Your task to perform on an android device: empty trash in google photos Image 0: 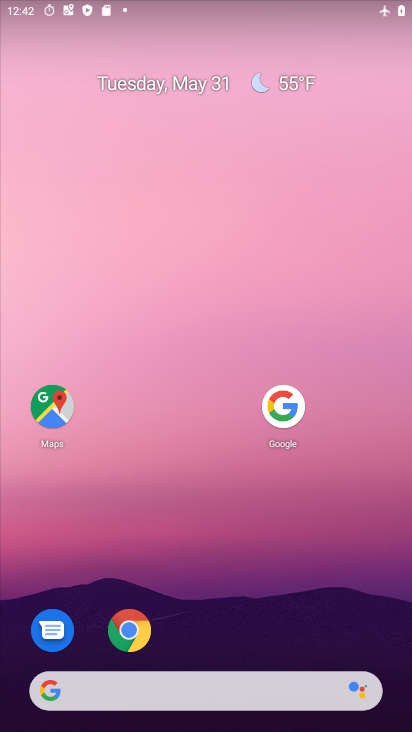
Step 0: drag from (235, 696) to (245, 431)
Your task to perform on an android device: empty trash in google photos Image 1: 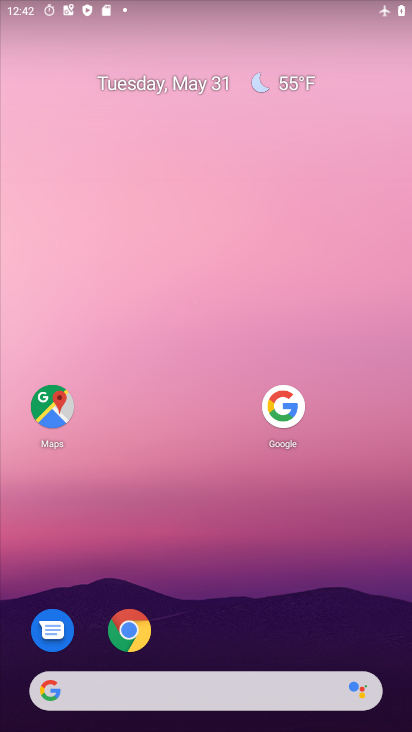
Step 1: drag from (170, 699) to (299, 270)
Your task to perform on an android device: empty trash in google photos Image 2: 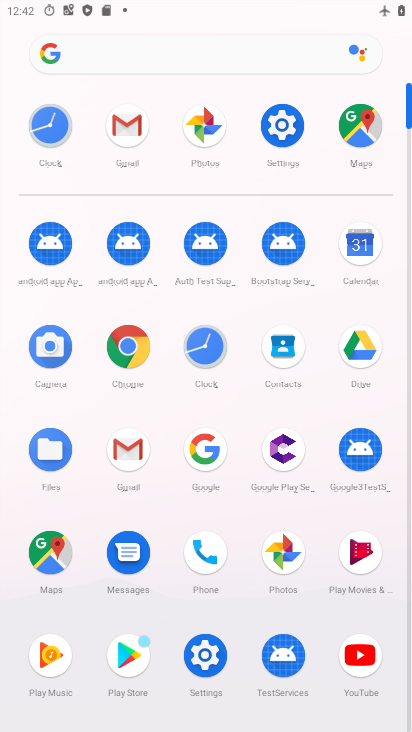
Step 2: click (294, 555)
Your task to perform on an android device: empty trash in google photos Image 3: 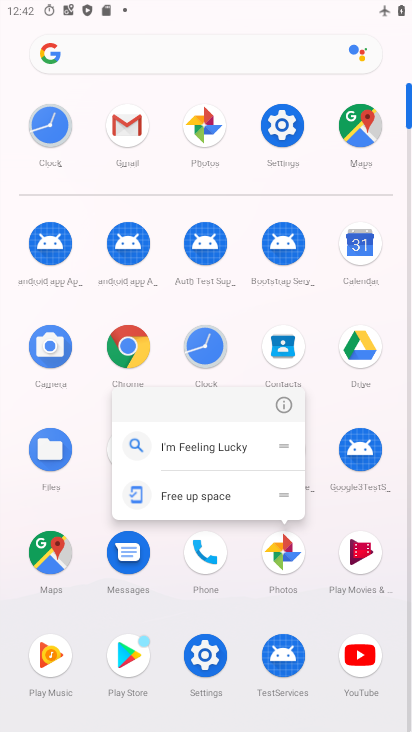
Step 3: click (273, 552)
Your task to perform on an android device: empty trash in google photos Image 4: 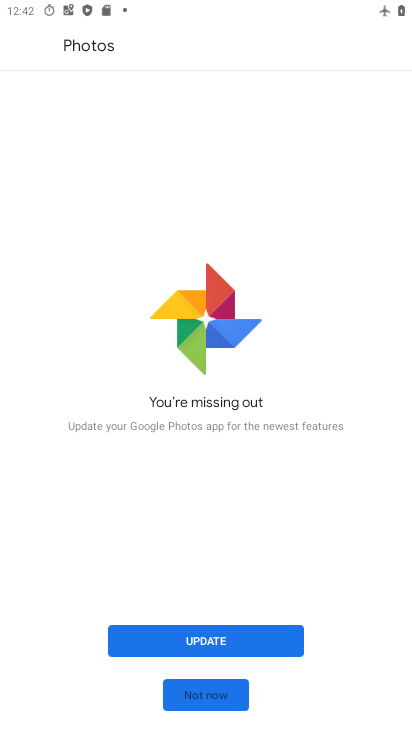
Step 4: click (189, 635)
Your task to perform on an android device: empty trash in google photos Image 5: 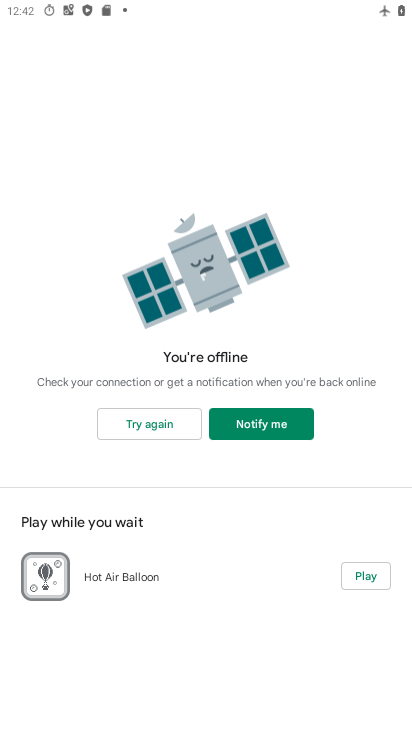
Step 5: click (145, 419)
Your task to perform on an android device: empty trash in google photos Image 6: 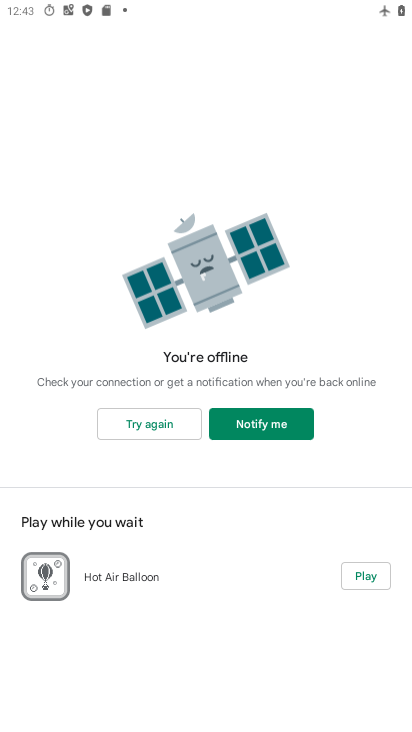
Step 6: task complete